Your task to perform on an android device: turn off picture-in-picture Image 0: 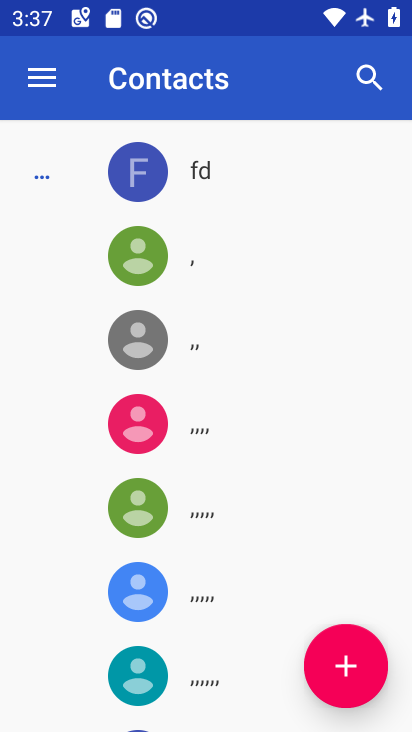
Step 0: press home button
Your task to perform on an android device: turn off picture-in-picture Image 1: 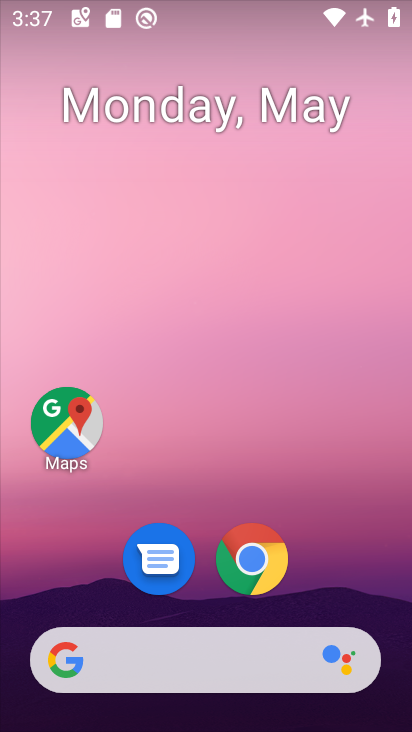
Step 1: drag from (302, 579) to (296, 189)
Your task to perform on an android device: turn off picture-in-picture Image 2: 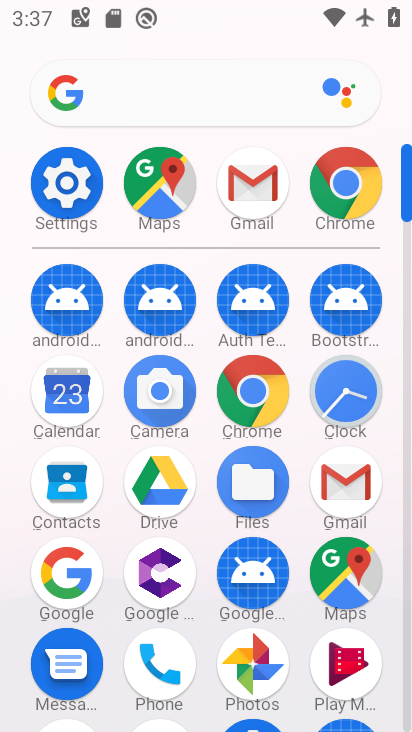
Step 2: click (69, 186)
Your task to perform on an android device: turn off picture-in-picture Image 3: 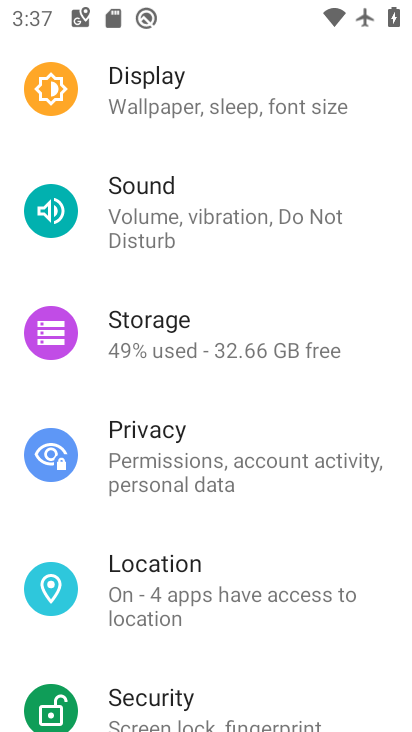
Step 3: drag from (170, 118) to (150, 395)
Your task to perform on an android device: turn off picture-in-picture Image 4: 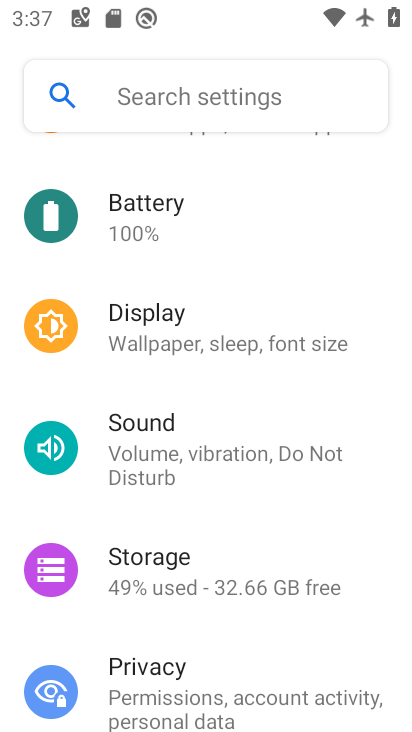
Step 4: drag from (200, 213) to (170, 511)
Your task to perform on an android device: turn off picture-in-picture Image 5: 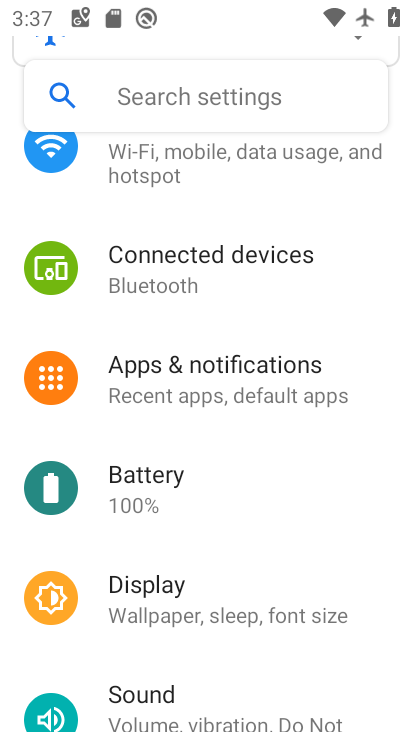
Step 5: drag from (206, 262) to (206, 488)
Your task to perform on an android device: turn off picture-in-picture Image 6: 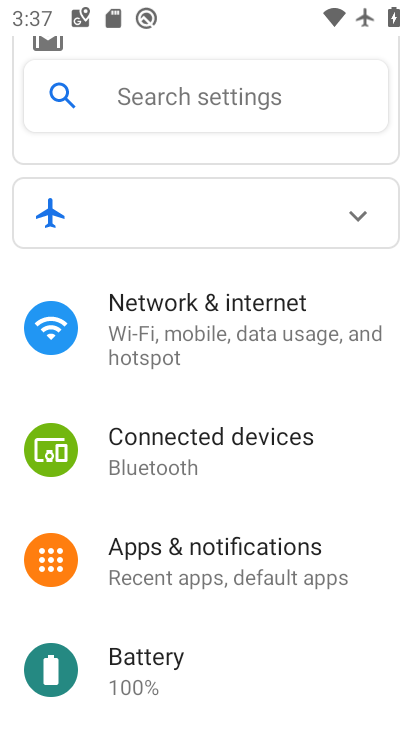
Step 6: click (178, 592)
Your task to perform on an android device: turn off picture-in-picture Image 7: 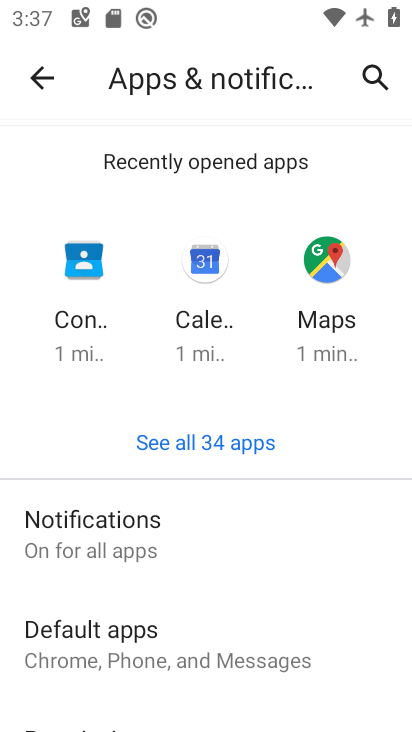
Step 7: drag from (120, 662) to (166, 445)
Your task to perform on an android device: turn off picture-in-picture Image 8: 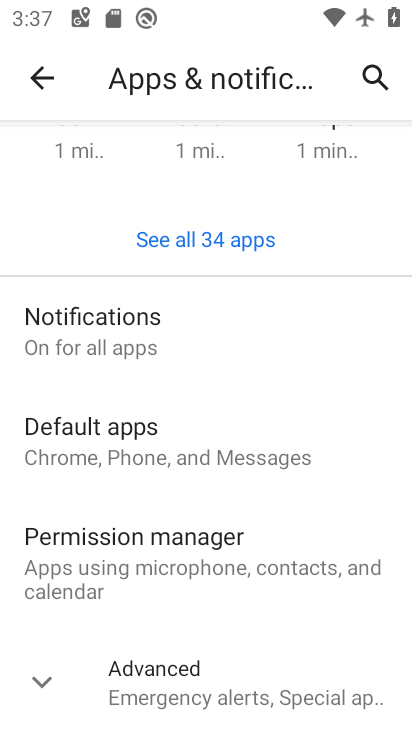
Step 8: drag from (141, 680) to (199, 452)
Your task to perform on an android device: turn off picture-in-picture Image 9: 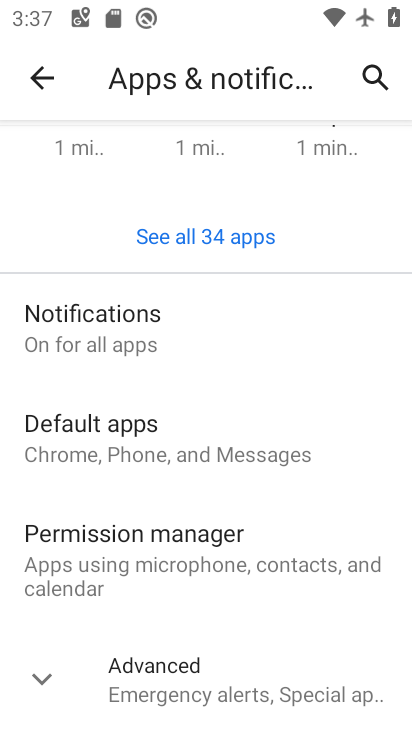
Step 9: click (110, 689)
Your task to perform on an android device: turn off picture-in-picture Image 10: 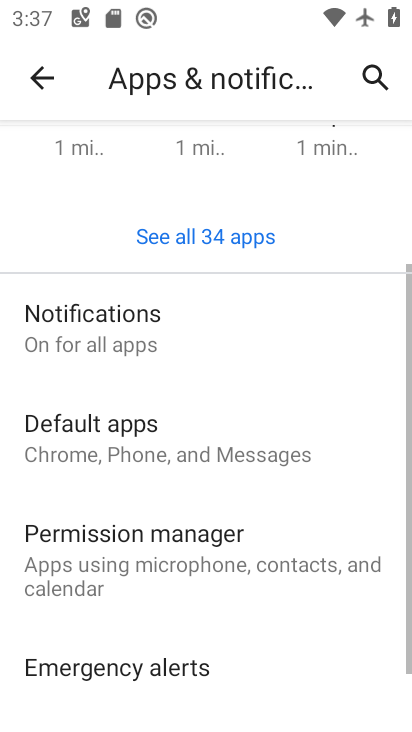
Step 10: drag from (151, 671) to (222, 344)
Your task to perform on an android device: turn off picture-in-picture Image 11: 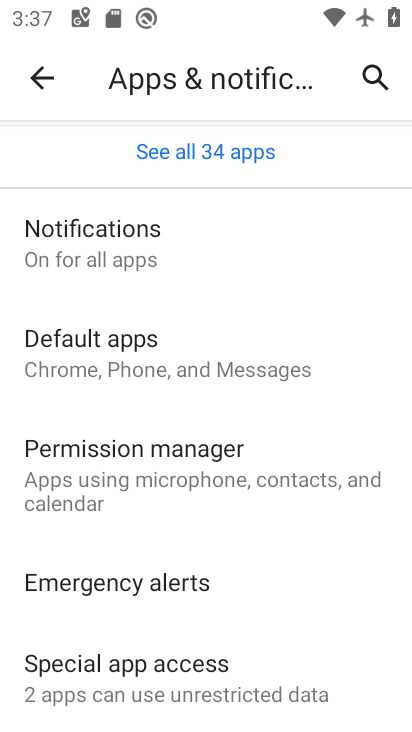
Step 11: click (170, 678)
Your task to perform on an android device: turn off picture-in-picture Image 12: 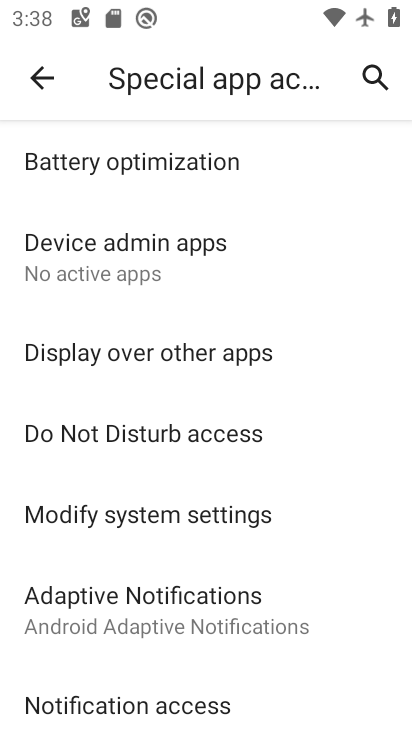
Step 12: drag from (203, 684) to (268, 389)
Your task to perform on an android device: turn off picture-in-picture Image 13: 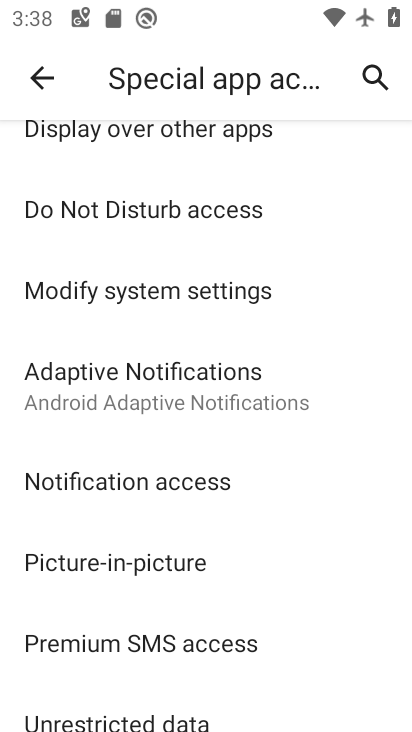
Step 13: click (181, 555)
Your task to perform on an android device: turn off picture-in-picture Image 14: 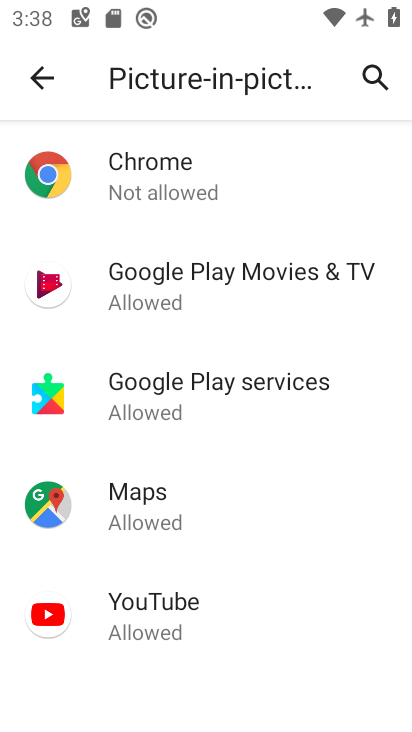
Step 14: click (201, 179)
Your task to perform on an android device: turn off picture-in-picture Image 15: 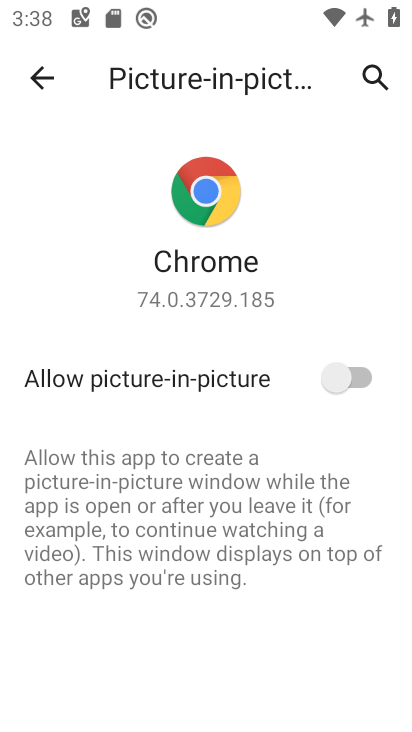
Step 15: click (357, 391)
Your task to perform on an android device: turn off picture-in-picture Image 16: 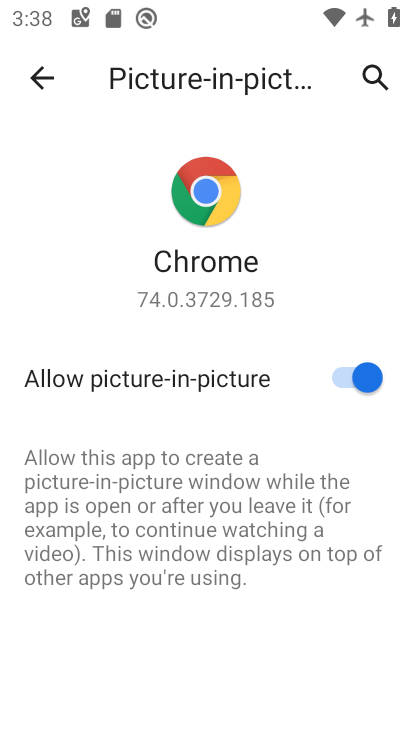
Step 16: task complete